Your task to perform on an android device: turn on the 12-hour format for clock Image 0: 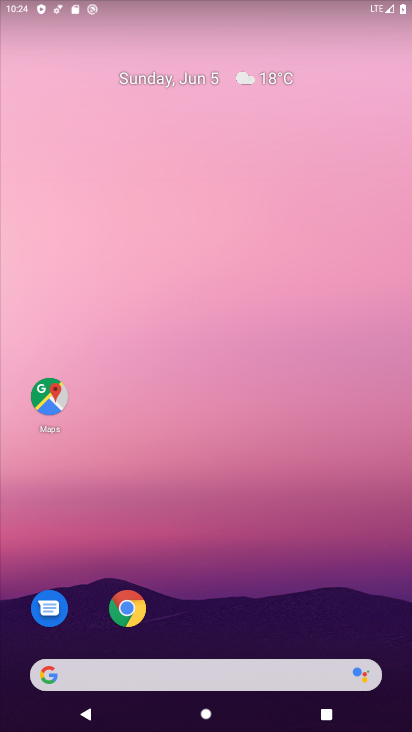
Step 0: drag from (200, 660) to (214, 100)
Your task to perform on an android device: turn on the 12-hour format for clock Image 1: 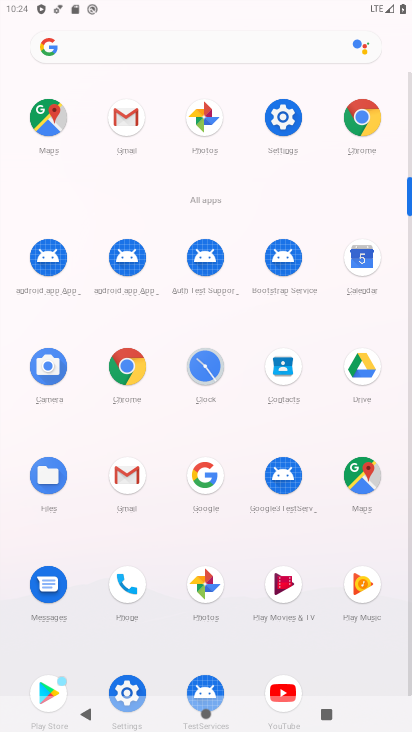
Step 1: click (279, 122)
Your task to perform on an android device: turn on the 12-hour format for clock Image 2: 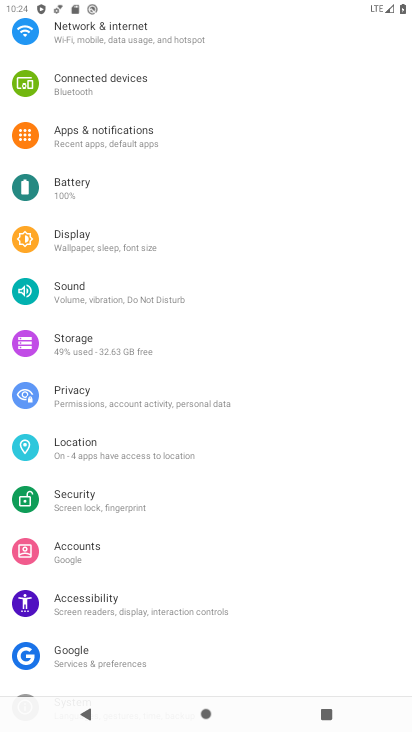
Step 2: drag from (110, 566) to (206, 129)
Your task to perform on an android device: turn on the 12-hour format for clock Image 3: 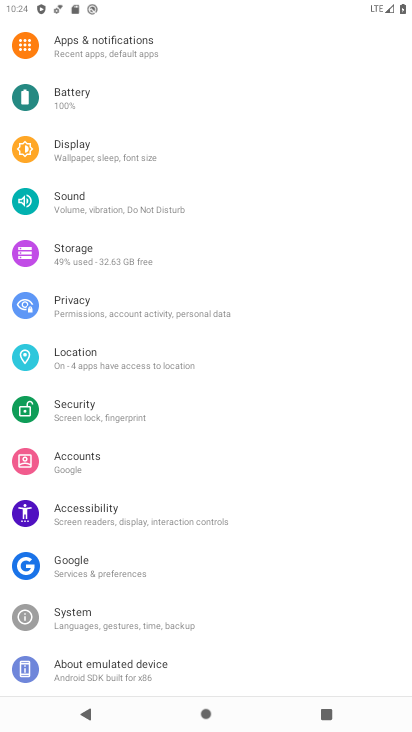
Step 3: click (89, 617)
Your task to perform on an android device: turn on the 12-hour format for clock Image 4: 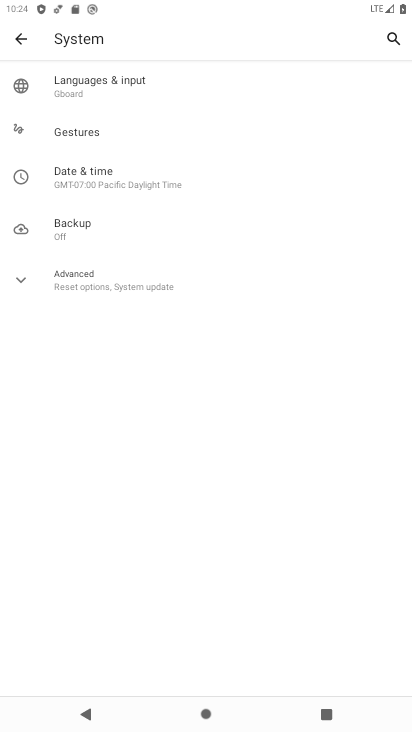
Step 4: click (88, 161)
Your task to perform on an android device: turn on the 12-hour format for clock Image 5: 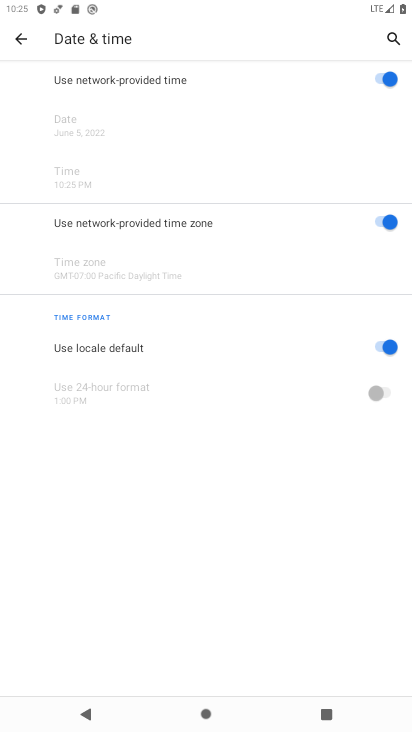
Step 5: task complete